Your task to perform on an android device: Do I have any events today? Image 0: 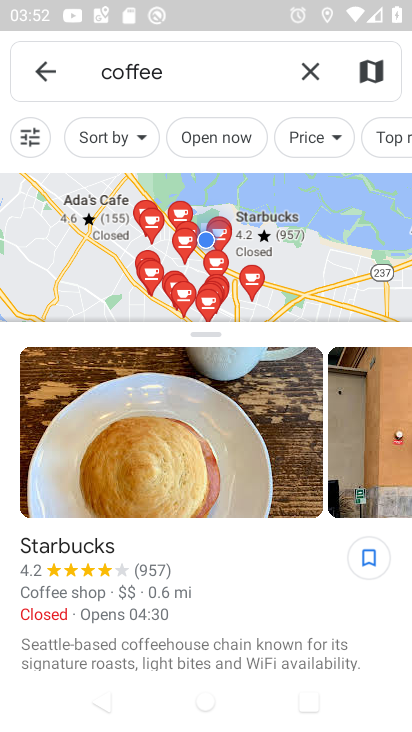
Step 0: press home button
Your task to perform on an android device: Do I have any events today? Image 1: 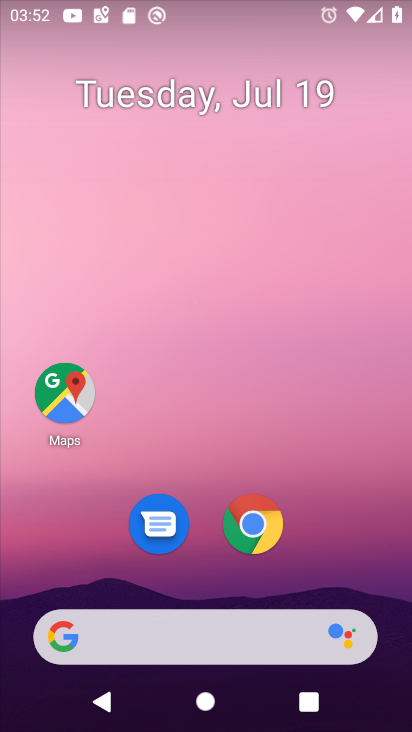
Step 1: drag from (324, 527) to (290, 19)
Your task to perform on an android device: Do I have any events today? Image 2: 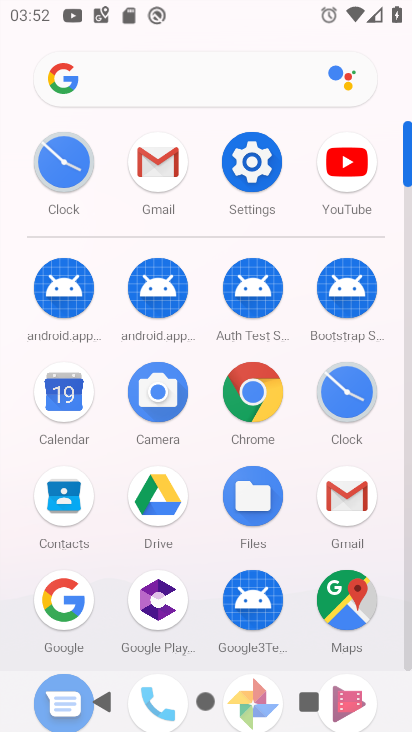
Step 2: click (72, 381)
Your task to perform on an android device: Do I have any events today? Image 3: 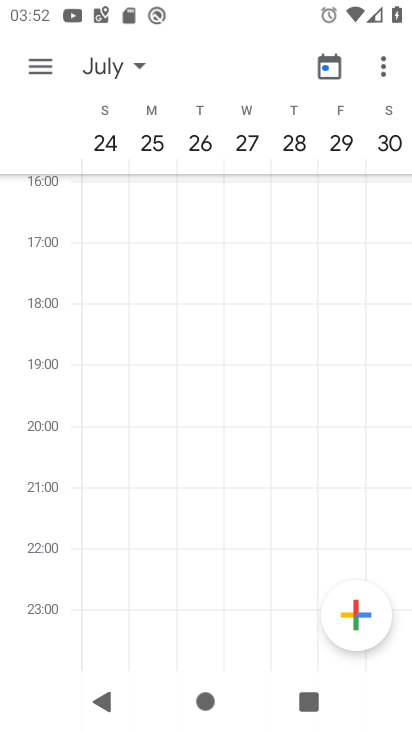
Step 3: task complete